Your task to perform on an android device: change your default location settings in chrome Image 0: 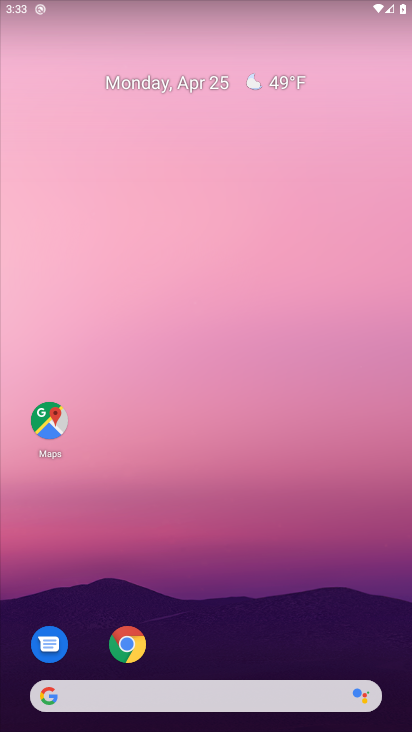
Step 0: drag from (225, 645) to (296, 218)
Your task to perform on an android device: change your default location settings in chrome Image 1: 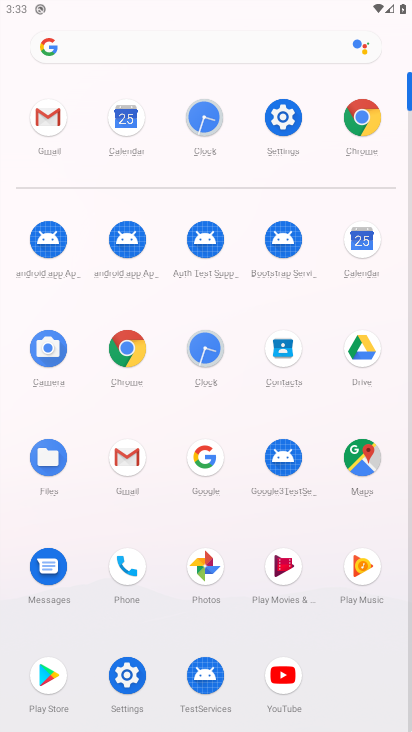
Step 1: click (364, 123)
Your task to perform on an android device: change your default location settings in chrome Image 2: 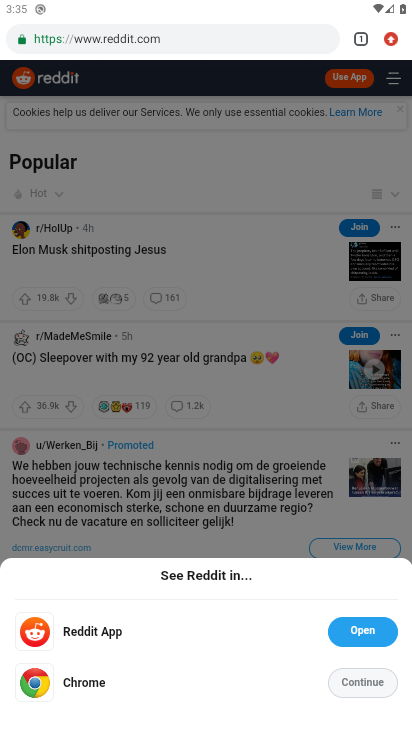
Step 2: task complete